Your task to perform on an android device: turn on notifications settings in the gmail app Image 0: 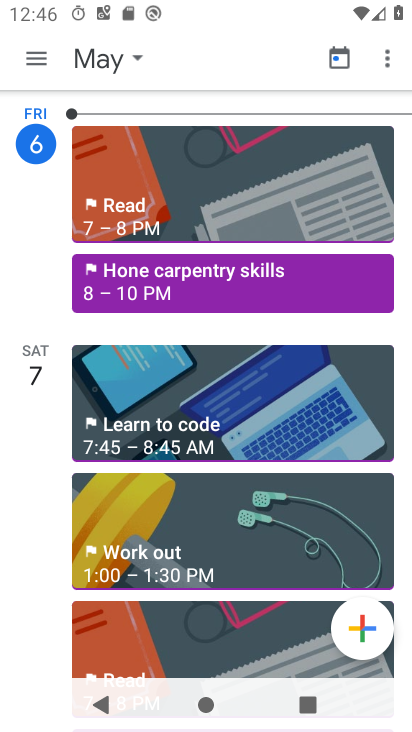
Step 0: press home button
Your task to perform on an android device: turn on notifications settings in the gmail app Image 1: 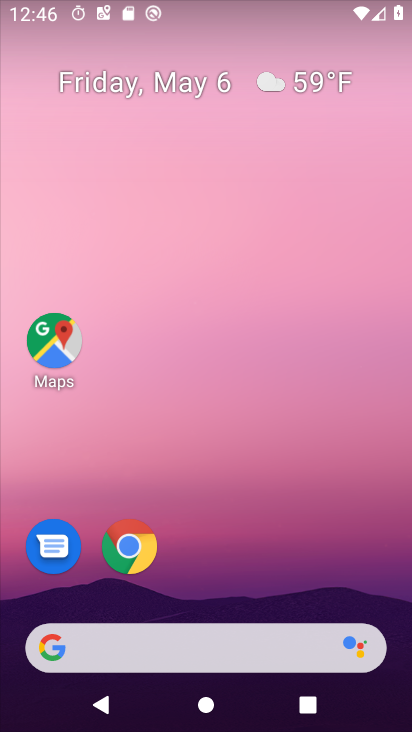
Step 1: drag from (259, 601) to (238, 145)
Your task to perform on an android device: turn on notifications settings in the gmail app Image 2: 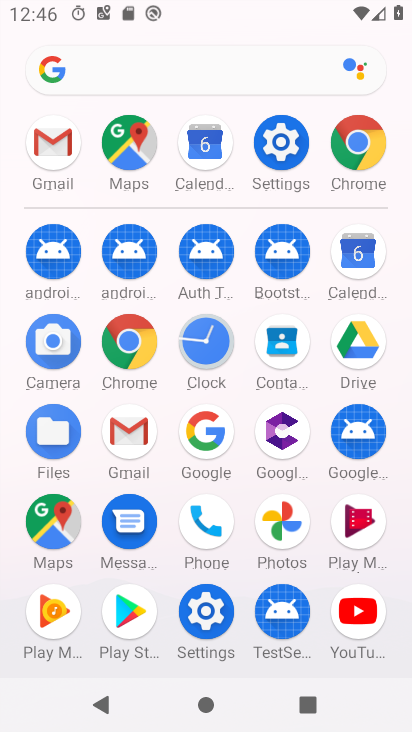
Step 2: click (132, 436)
Your task to perform on an android device: turn on notifications settings in the gmail app Image 3: 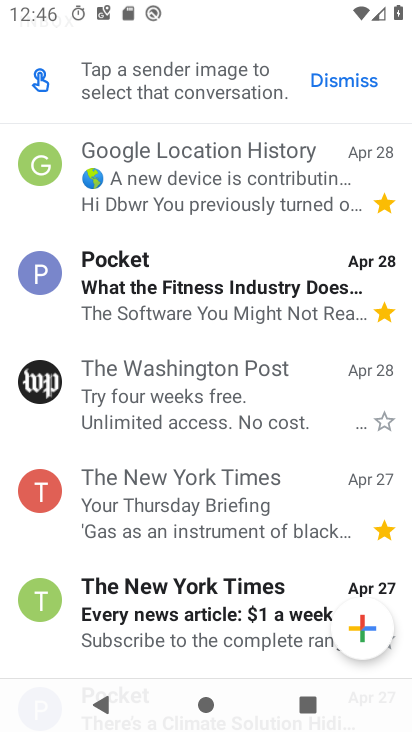
Step 3: drag from (179, 208) to (180, 365)
Your task to perform on an android device: turn on notifications settings in the gmail app Image 4: 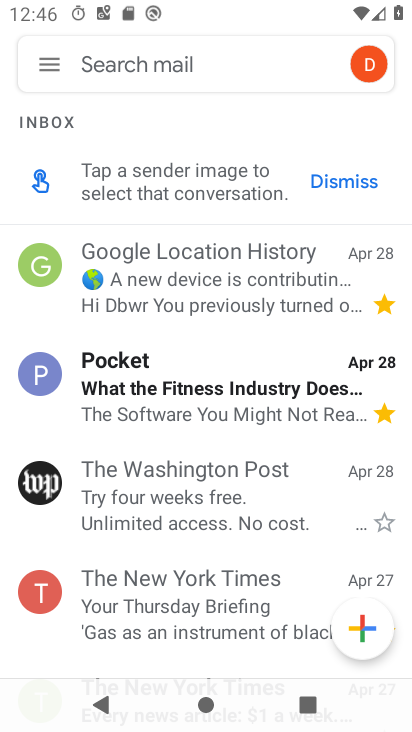
Step 4: click (45, 65)
Your task to perform on an android device: turn on notifications settings in the gmail app Image 5: 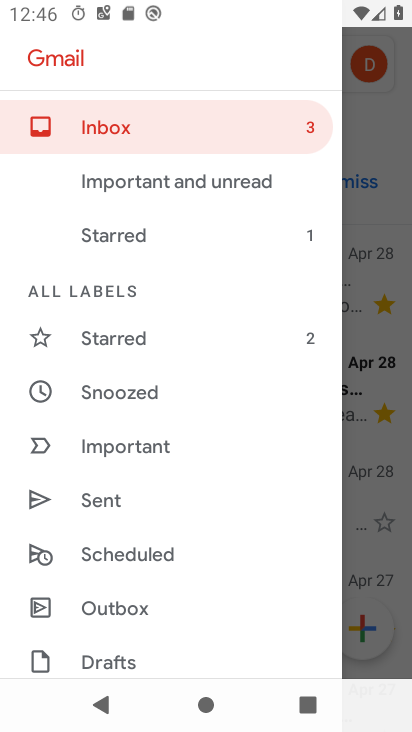
Step 5: drag from (194, 608) to (191, 231)
Your task to perform on an android device: turn on notifications settings in the gmail app Image 6: 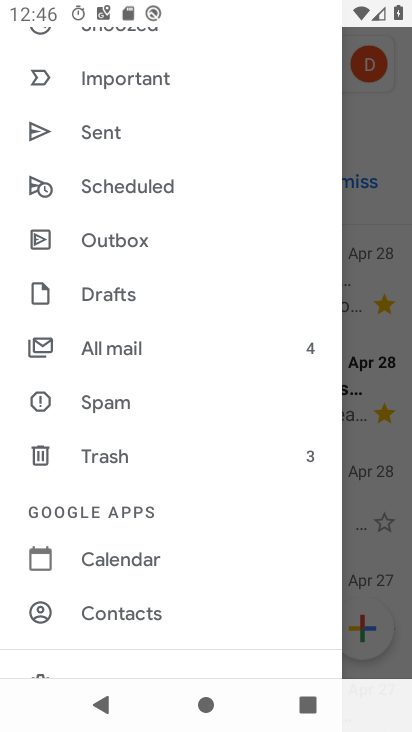
Step 6: drag from (205, 570) to (206, 407)
Your task to perform on an android device: turn on notifications settings in the gmail app Image 7: 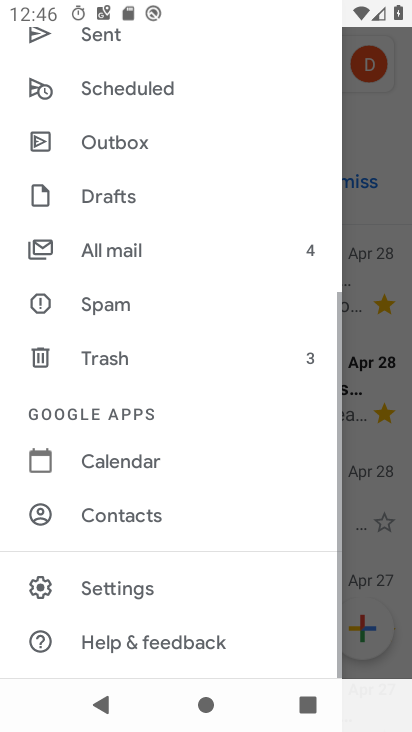
Step 7: click (119, 590)
Your task to perform on an android device: turn on notifications settings in the gmail app Image 8: 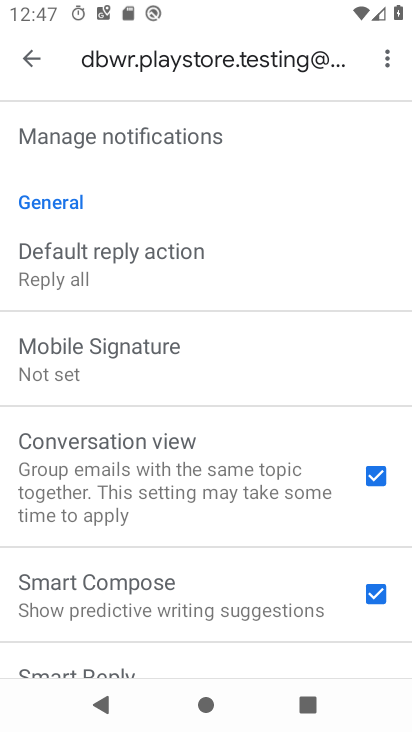
Step 8: click (216, 131)
Your task to perform on an android device: turn on notifications settings in the gmail app Image 9: 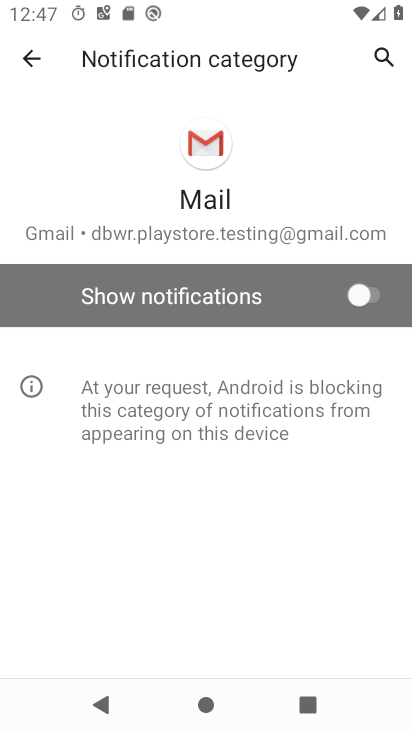
Step 9: click (376, 295)
Your task to perform on an android device: turn on notifications settings in the gmail app Image 10: 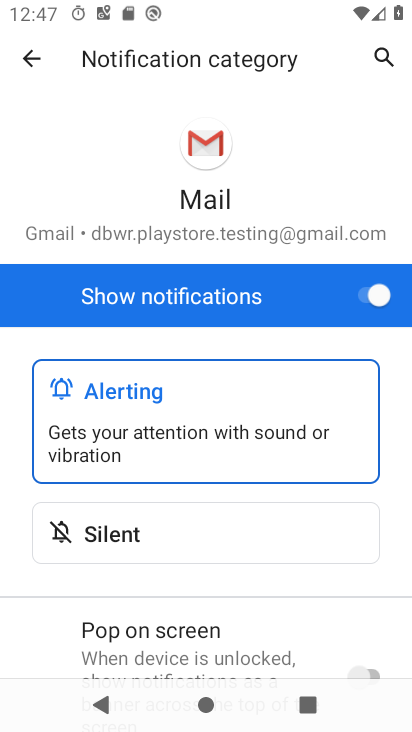
Step 10: task complete